Your task to perform on an android device: see creations saved in the google photos Image 0: 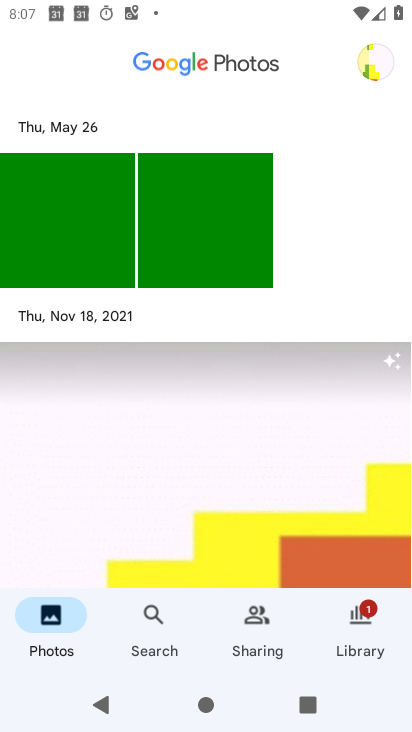
Step 0: press home button
Your task to perform on an android device: see creations saved in the google photos Image 1: 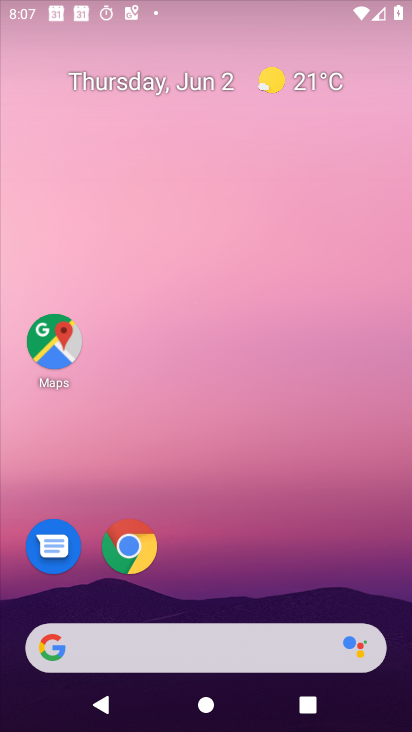
Step 1: drag from (307, 531) to (325, 239)
Your task to perform on an android device: see creations saved in the google photos Image 2: 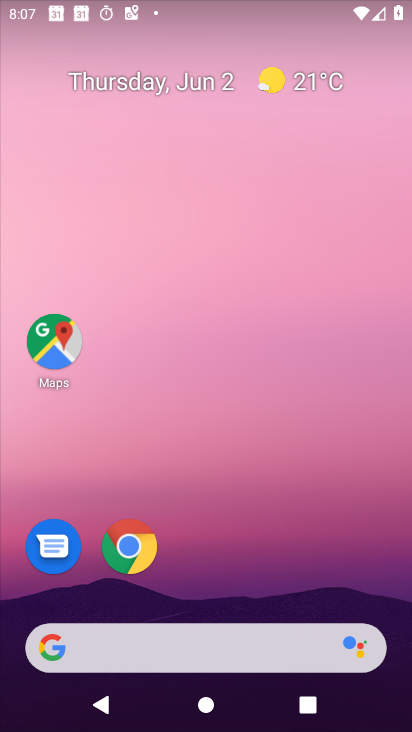
Step 2: drag from (296, 529) to (315, 188)
Your task to perform on an android device: see creations saved in the google photos Image 3: 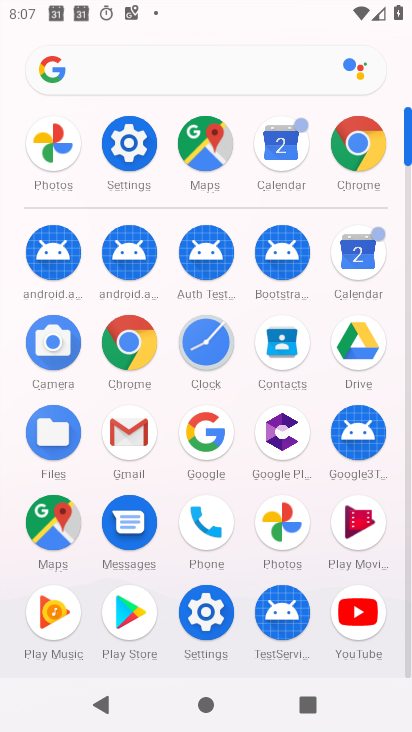
Step 3: click (291, 524)
Your task to perform on an android device: see creations saved in the google photos Image 4: 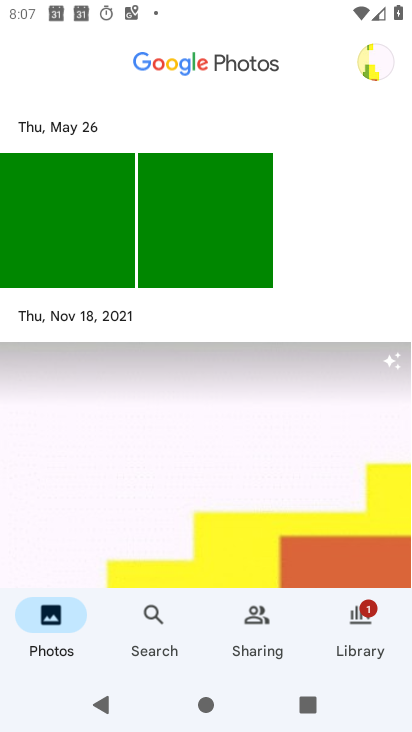
Step 4: click (154, 605)
Your task to perform on an android device: see creations saved in the google photos Image 5: 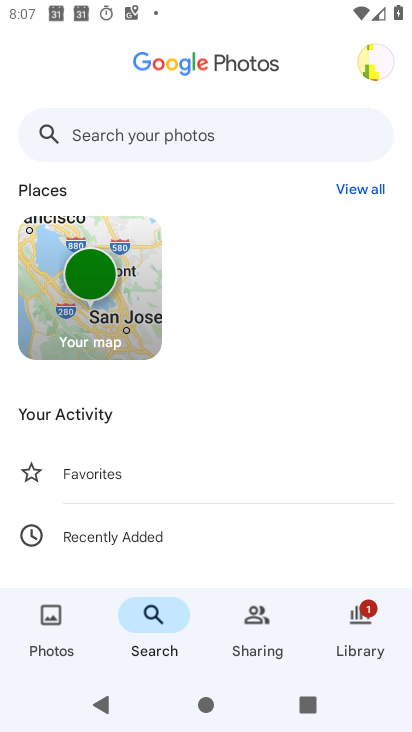
Step 5: click (169, 143)
Your task to perform on an android device: see creations saved in the google photos Image 6: 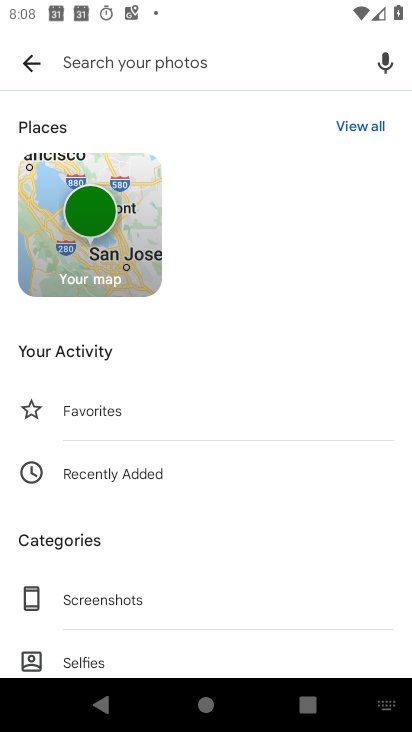
Step 6: type "creations "
Your task to perform on an android device: see creations saved in the google photos Image 7: 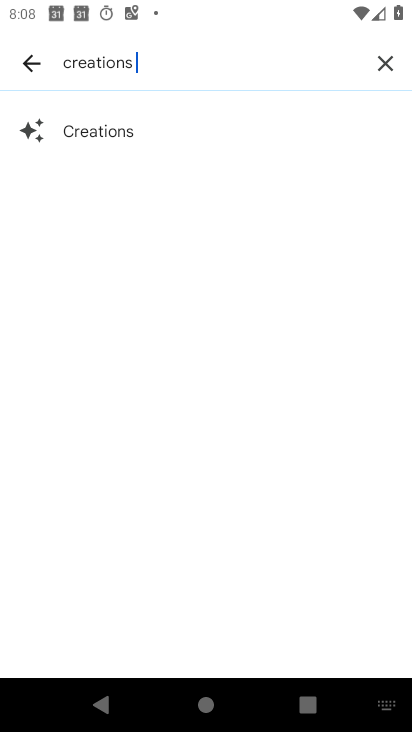
Step 7: click (122, 140)
Your task to perform on an android device: see creations saved in the google photos Image 8: 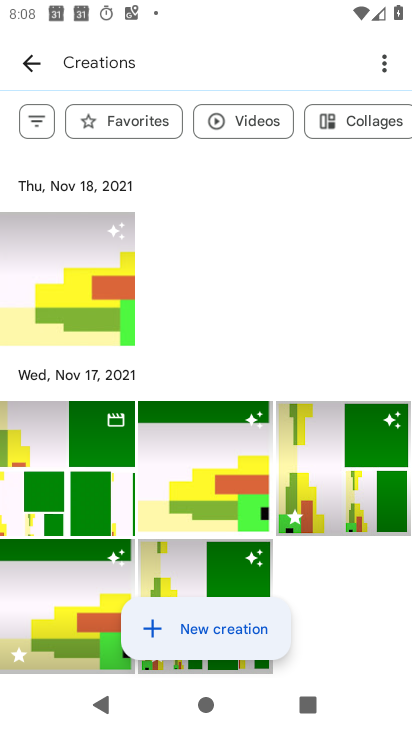
Step 8: task complete